Your task to perform on an android device: Open the Play Movies app and select the watchlist tab. Image 0: 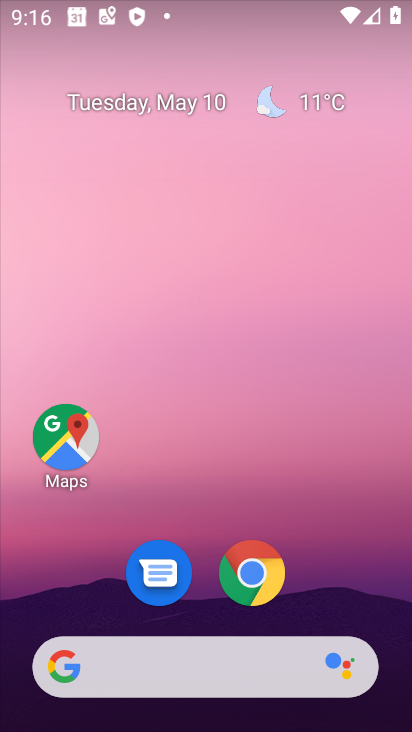
Step 0: drag from (358, 626) to (365, 2)
Your task to perform on an android device: Open the Play Movies app and select the watchlist tab. Image 1: 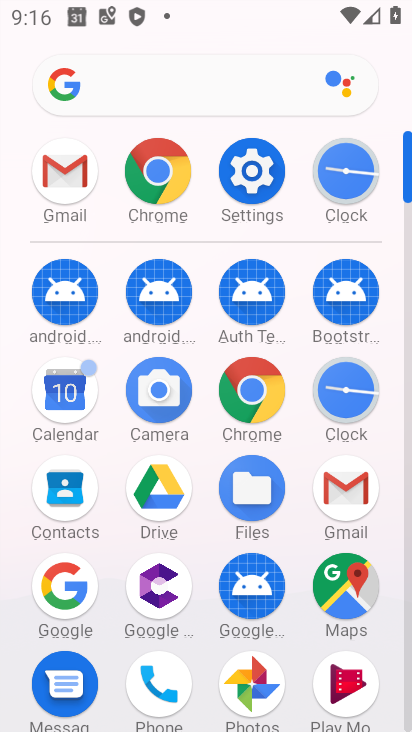
Step 1: click (405, 615)
Your task to perform on an android device: Open the Play Movies app and select the watchlist tab. Image 2: 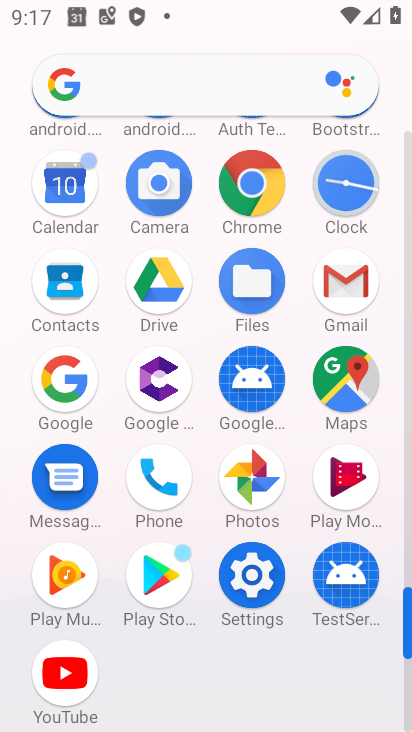
Step 2: click (342, 475)
Your task to perform on an android device: Open the Play Movies app and select the watchlist tab. Image 3: 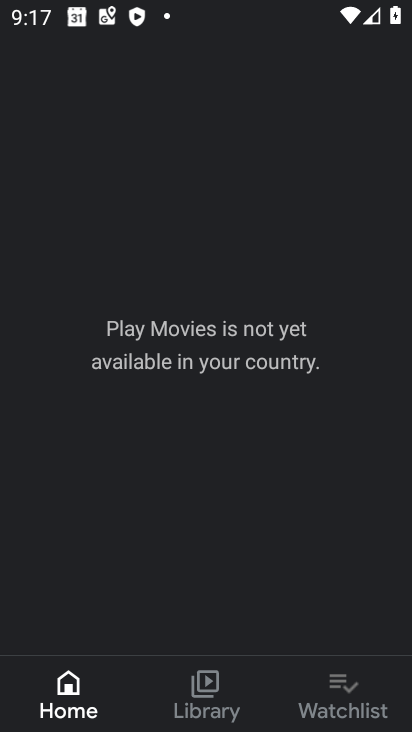
Step 3: click (357, 687)
Your task to perform on an android device: Open the Play Movies app and select the watchlist tab. Image 4: 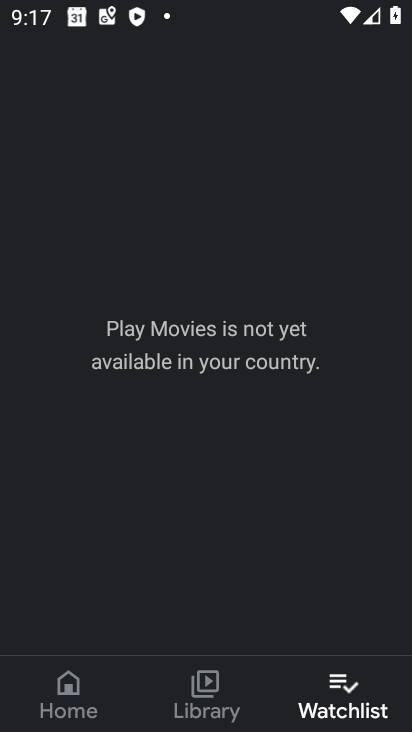
Step 4: task complete